Your task to perform on an android device: Open my contact list Image 0: 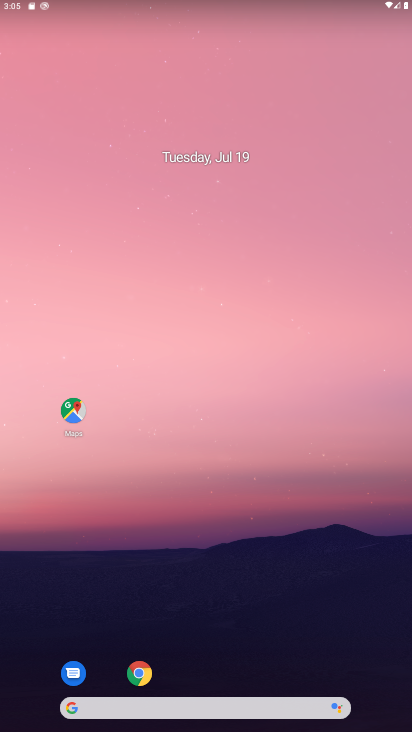
Step 0: drag from (239, 672) to (331, 300)
Your task to perform on an android device: Open my contact list Image 1: 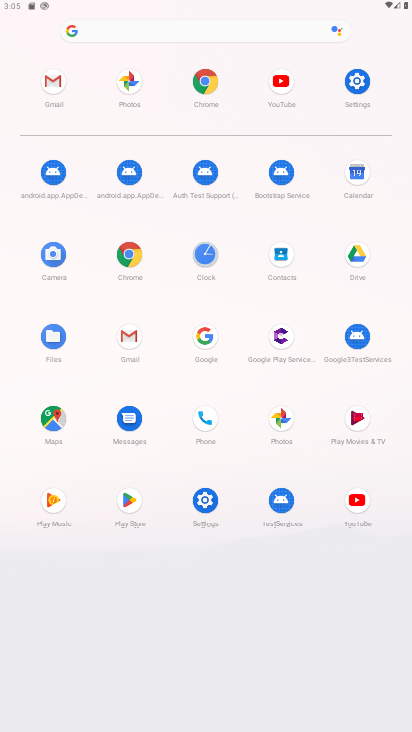
Step 1: click (283, 256)
Your task to perform on an android device: Open my contact list Image 2: 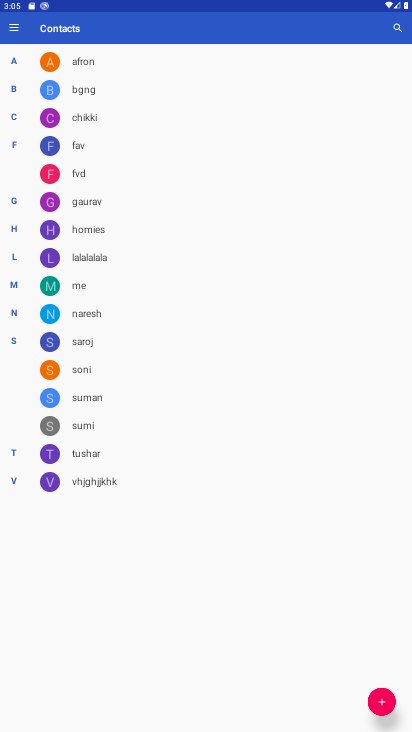
Step 2: task complete